Your task to perform on an android device: Open calendar and show me the first week of next month Image 0: 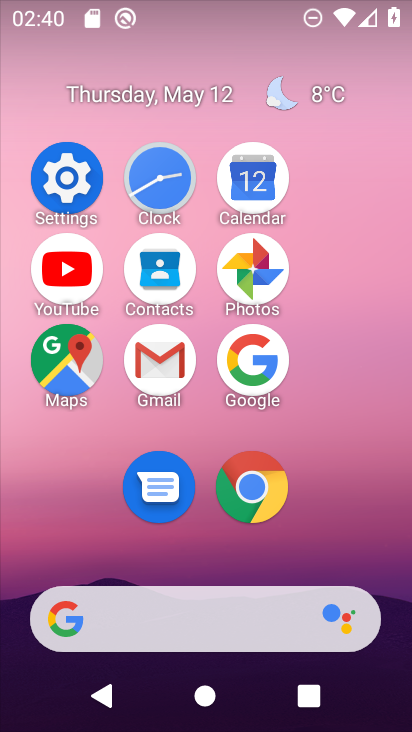
Step 0: click (271, 185)
Your task to perform on an android device: Open calendar and show me the first week of next month Image 1: 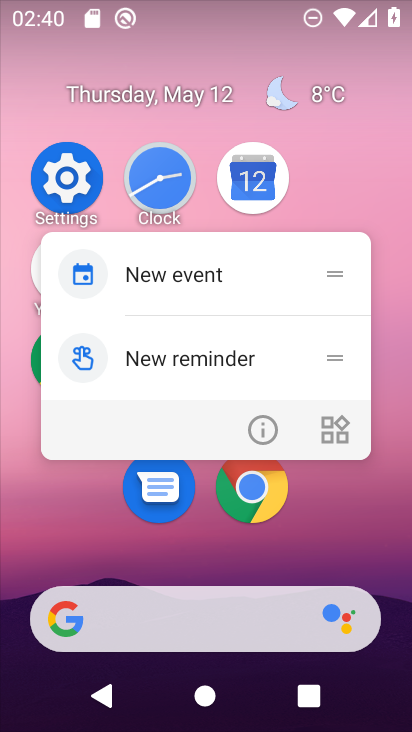
Step 1: click (254, 172)
Your task to perform on an android device: Open calendar and show me the first week of next month Image 2: 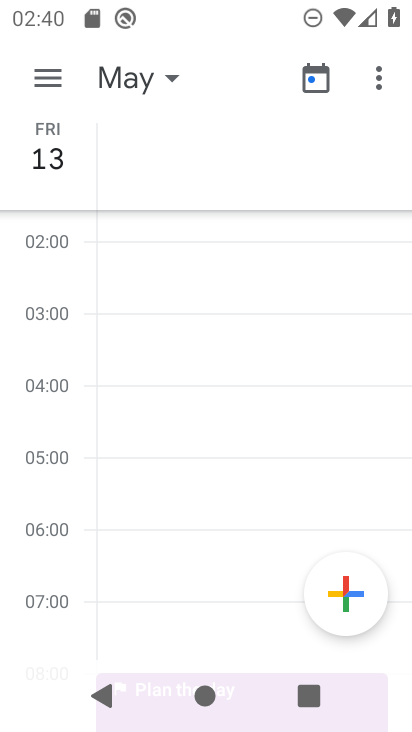
Step 2: click (135, 85)
Your task to perform on an android device: Open calendar and show me the first week of next month Image 3: 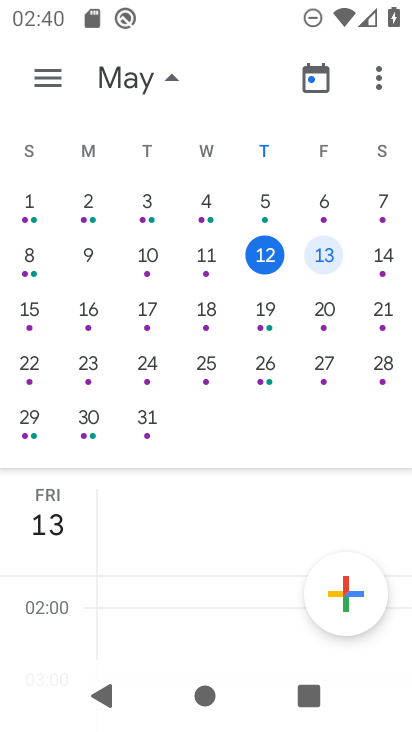
Step 3: drag from (406, 276) to (2, 286)
Your task to perform on an android device: Open calendar and show me the first week of next month Image 4: 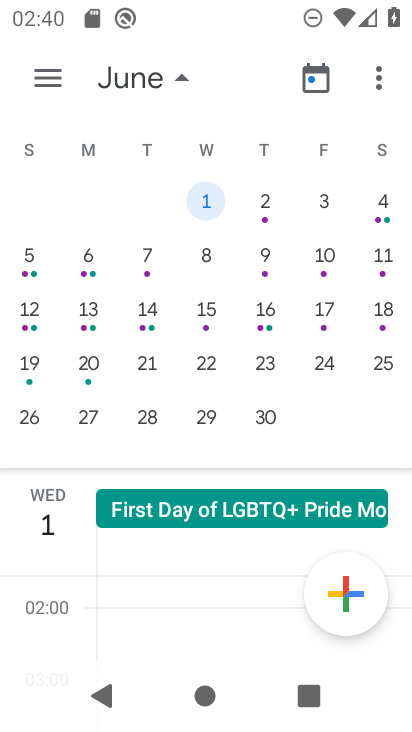
Step 4: click (56, 90)
Your task to perform on an android device: Open calendar and show me the first week of next month Image 5: 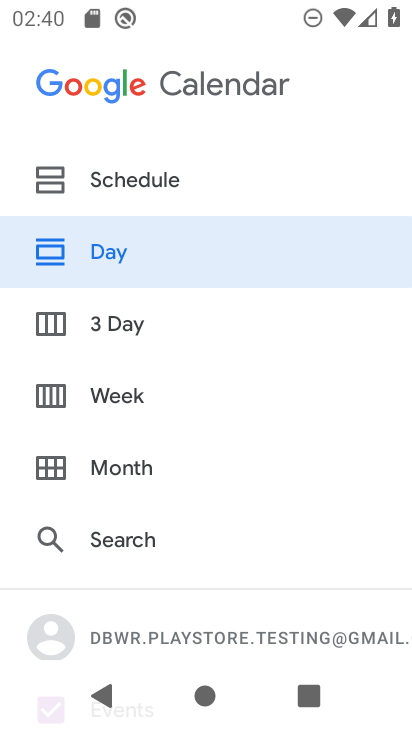
Step 5: click (109, 389)
Your task to perform on an android device: Open calendar and show me the first week of next month Image 6: 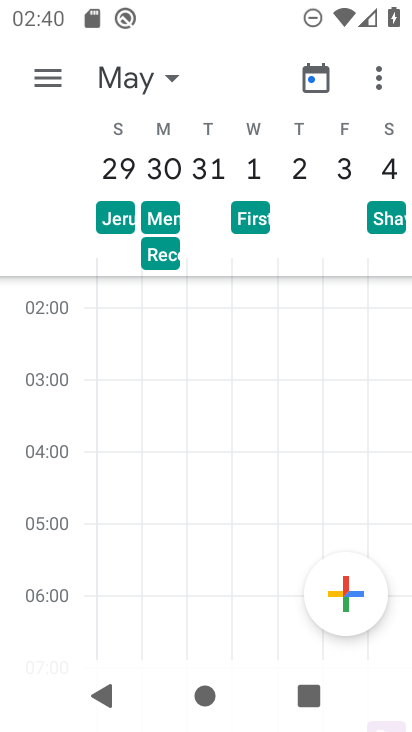
Step 6: task complete